Your task to perform on an android device: View the shopping cart on ebay. Image 0: 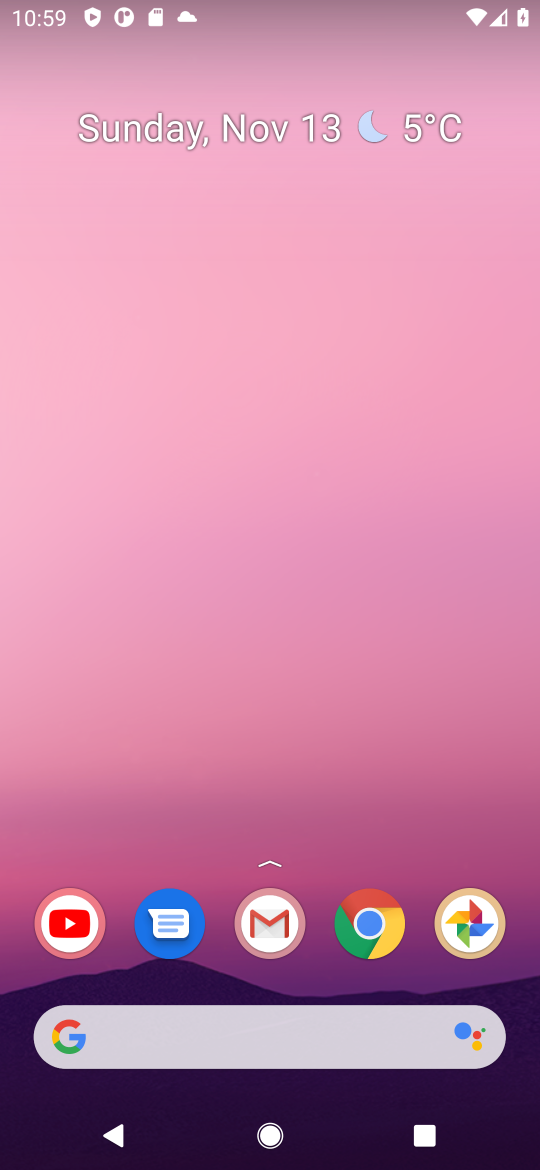
Step 0: click (382, 930)
Your task to perform on an android device: View the shopping cart on ebay. Image 1: 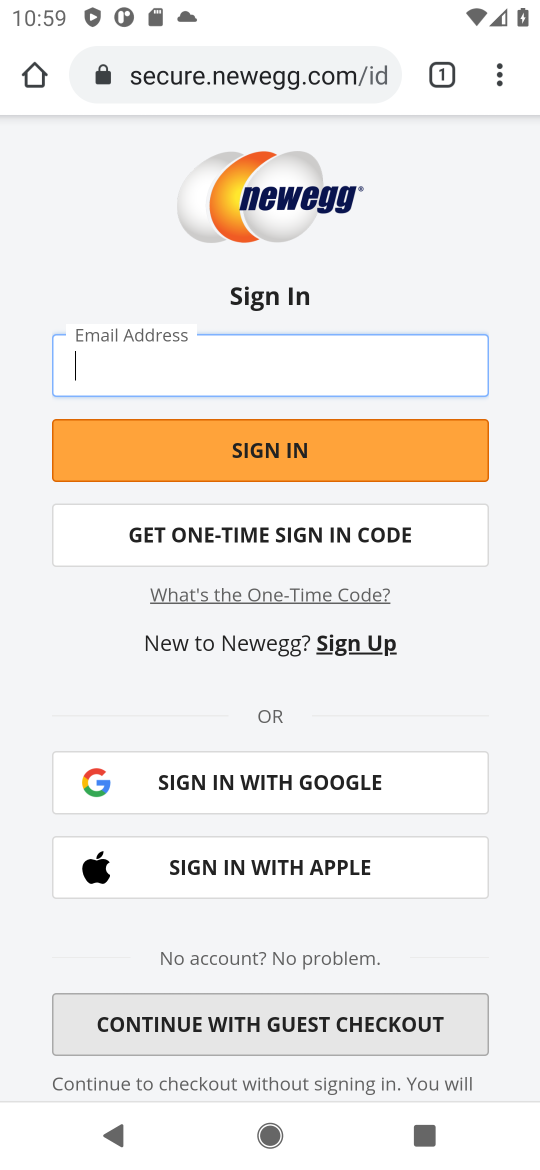
Step 1: click (260, 86)
Your task to perform on an android device: View the shopping cart on ebay. Image 2: 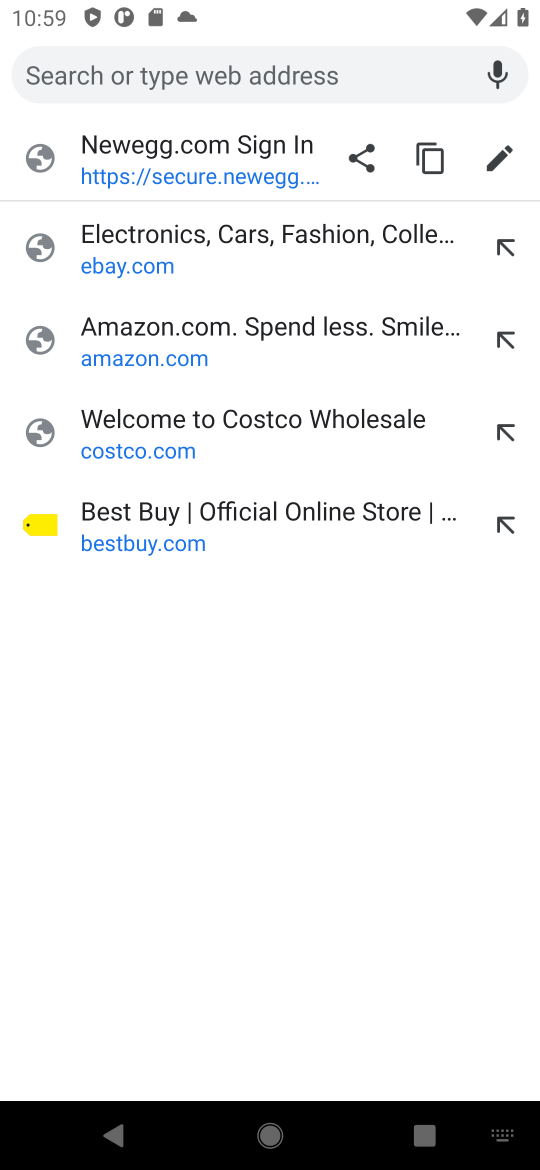
Step 2: type "ebay"
Your task to perform on an android device: View the shopping cart on ebay. Image 3: 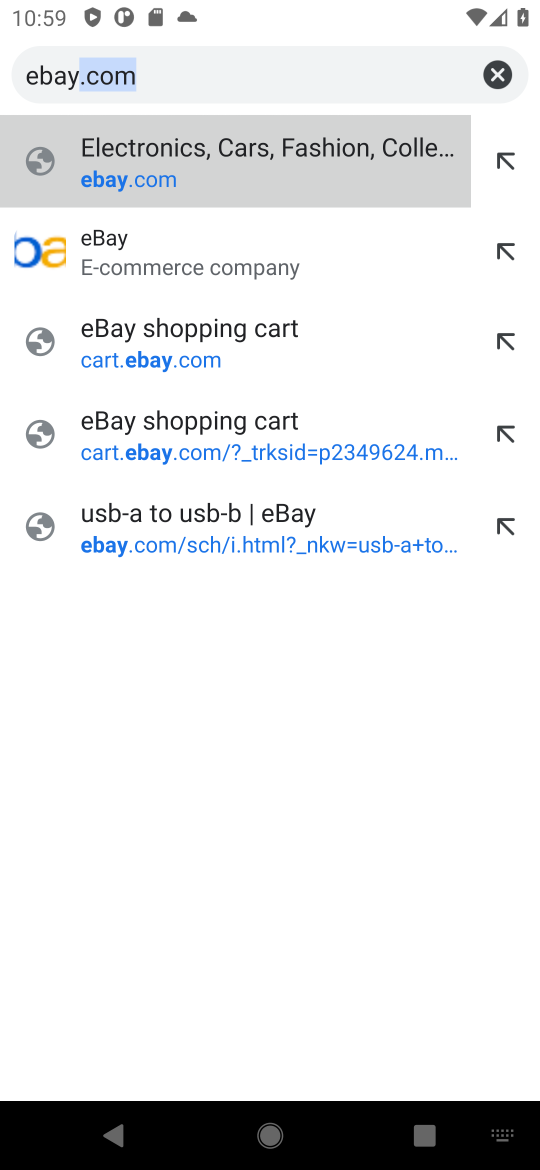
Step 3: press enter
Your task to perform on an android device: View the shopping cart on ebay. Image 4: 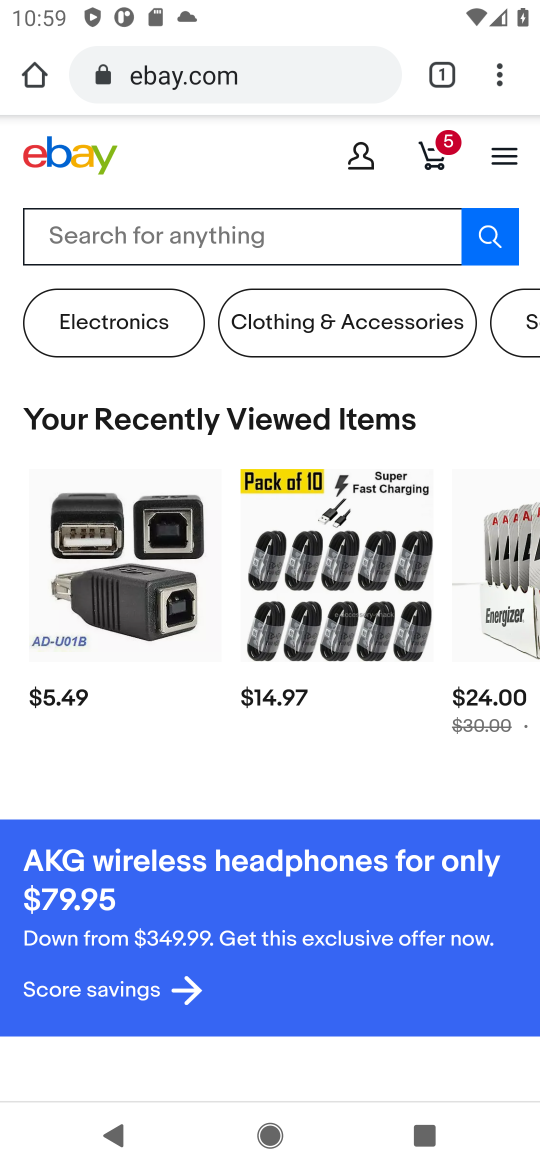
Step 4: click (436, 157)
Your task to perform on an android device: View the shopping cart on ebay. Image 5: 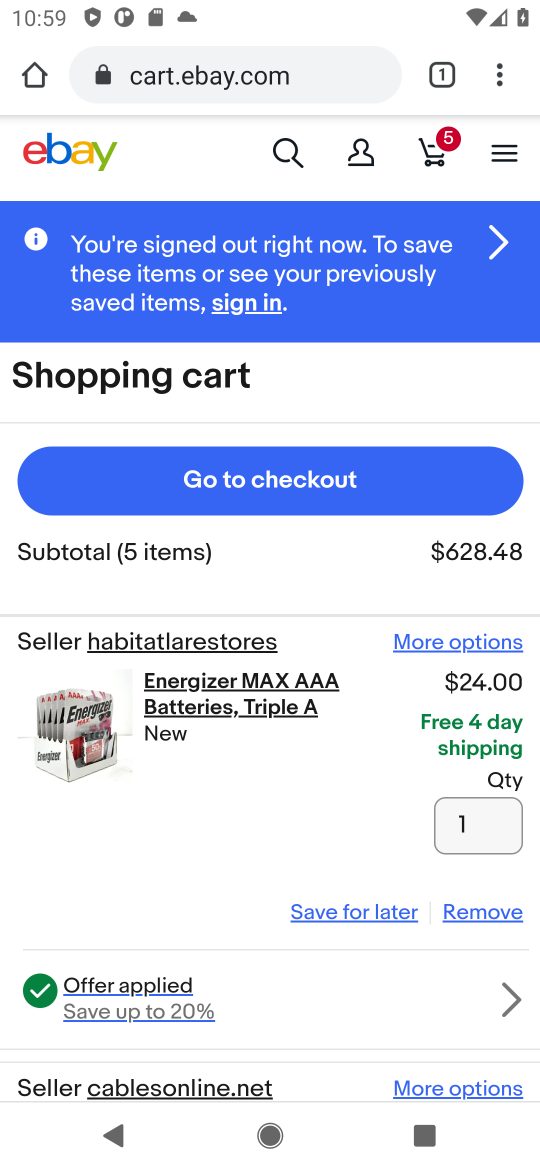
Step 5: task complete